Your task to perform on an android device: check storage Image 0: 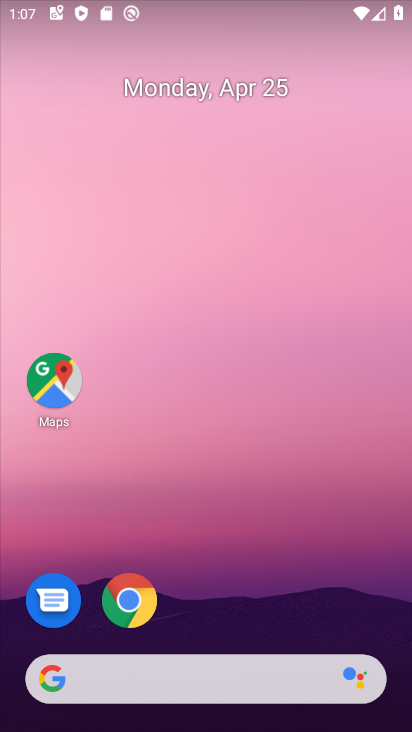
Step 0: drag from (159, 668) to (218, 156)
Your task to perform on an android device: check storage Image 1: 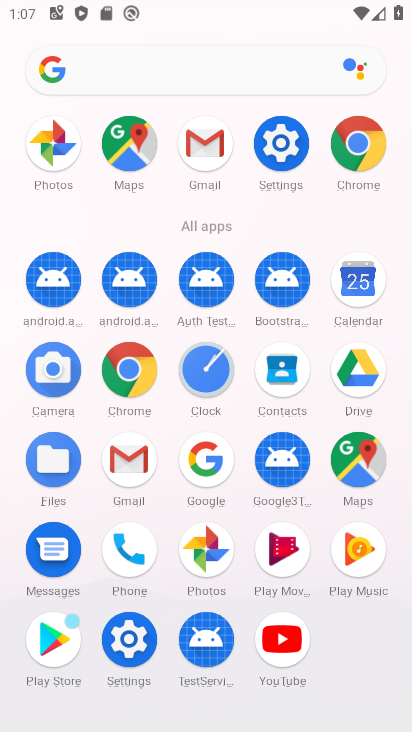
Step 1: click (277, 149)
Your task to perform on an android device: check storage Image 2: 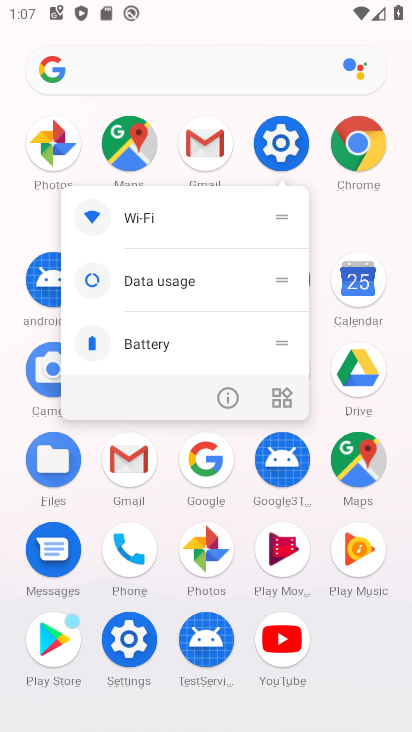
Step 2: click (288, 144)
Your task to perform on an android device: check storage Image 3: 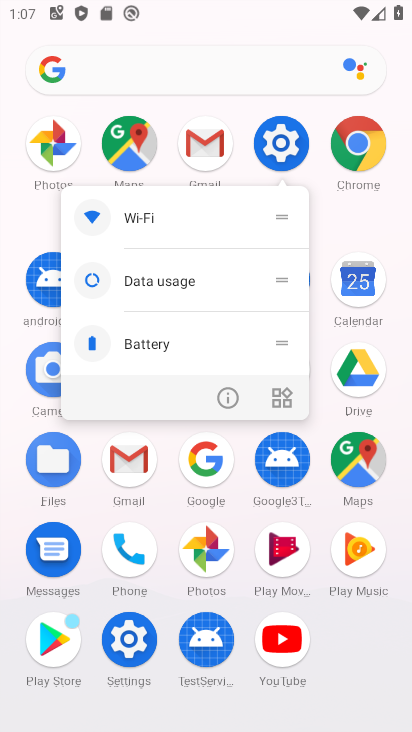
Step 3: click (281, 152)
Your task to perform on an android device: check storage Image 4: 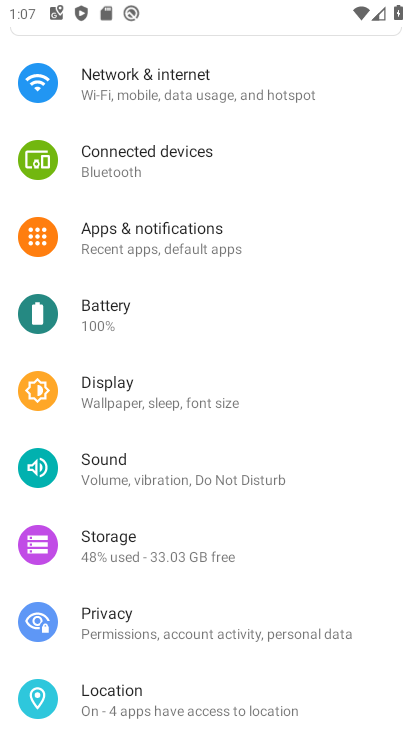
Step 4: click (119, 537)
Your task to perform on an android device: check storage Image 5: 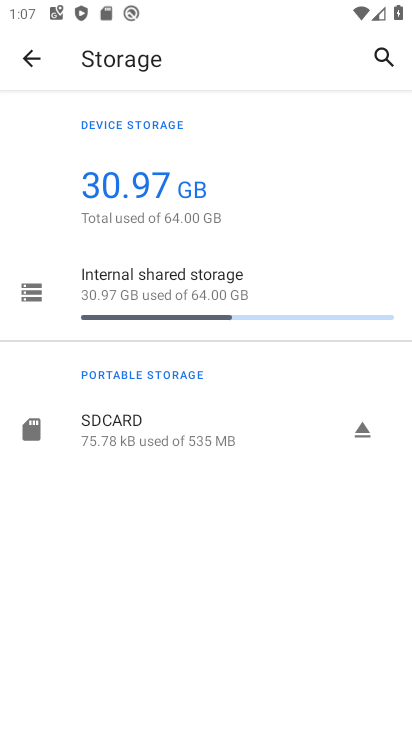
Step 5: task complete